Your task to perform on an android device: Open settings Image 0: 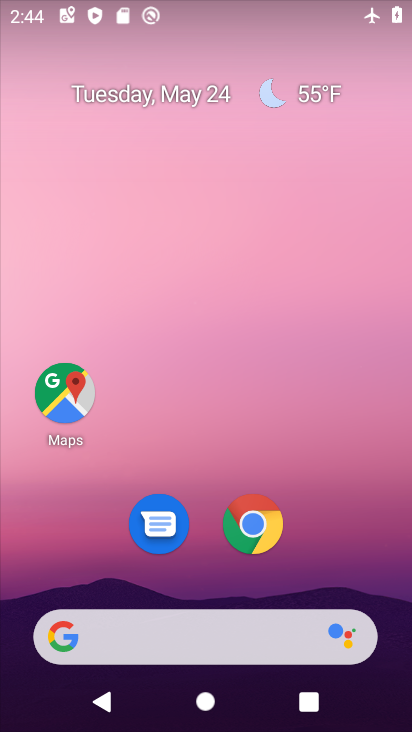
Step 0: drag from (266, 446) to (312, 7)
Your task to perform on an android device: Open settings Image 1: 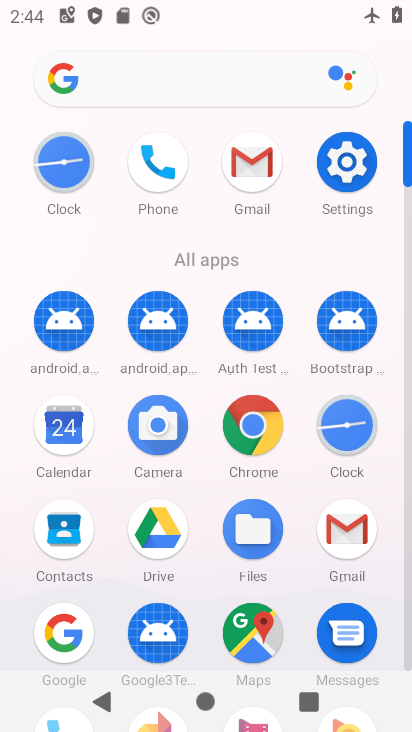
Step 1: click (340, 155)
Your task to perform on an android device: Open settings Image 2: 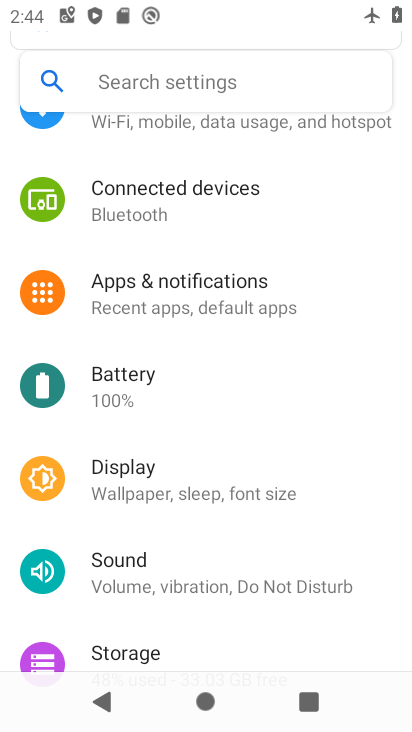
Step 2: task complete